Your task to perform on an android device: What's the weather going to be tomorrow? Image 0: 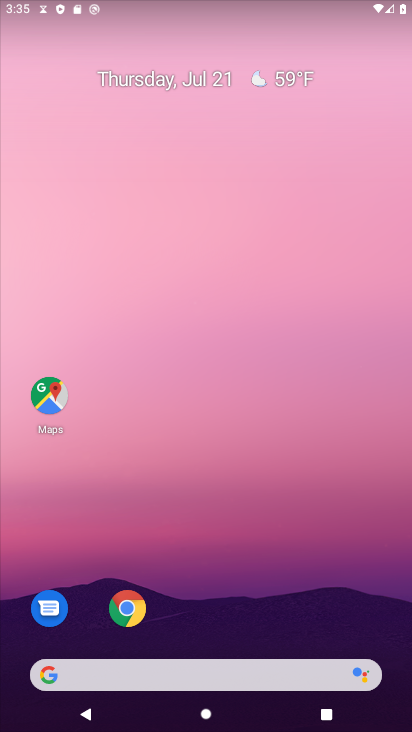
Step 0: drag from (198, 665) to (267, 9)
Your task to perform on an android device: What's the weather going to be tomorrow? Image 1: 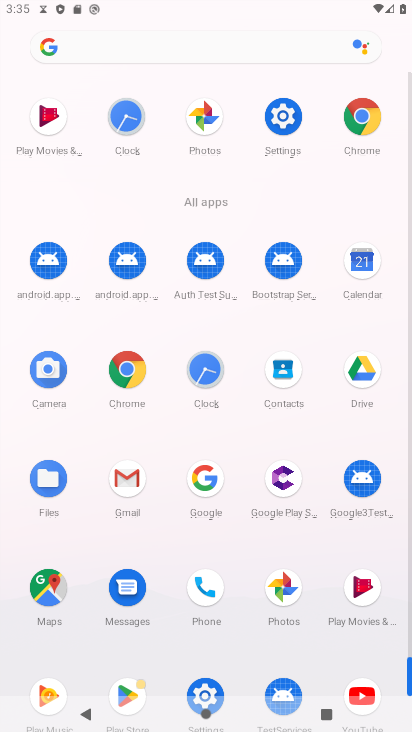
Step 1: click (133, 375)
Your task to perform on an android device: What's the weather going to be tomorrow? Image 2: 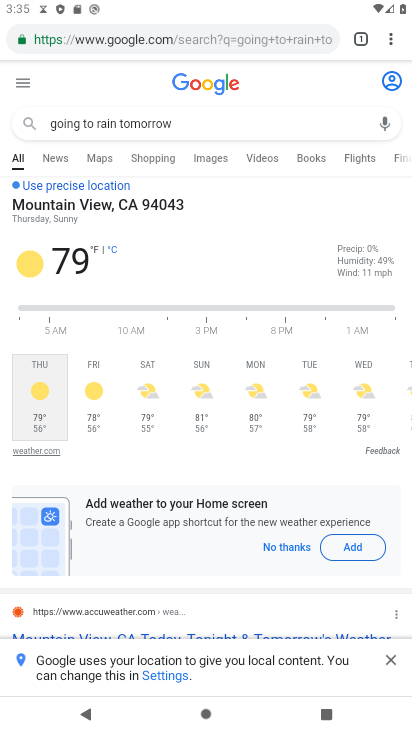
Step 2: click (120, 26)
Your task to perform on an android device: What's the weather going to be tomorrow? Image 3: 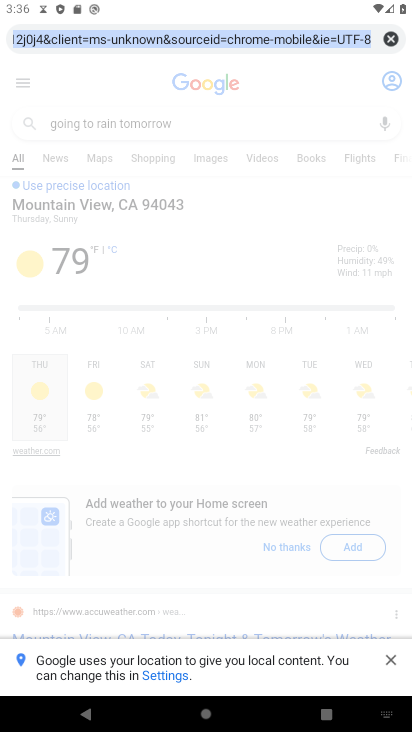
Step 3: type "weather going to be tomorrow"
Your task to perform on an android device: What's the weather going to be tomorrow? Image 4: 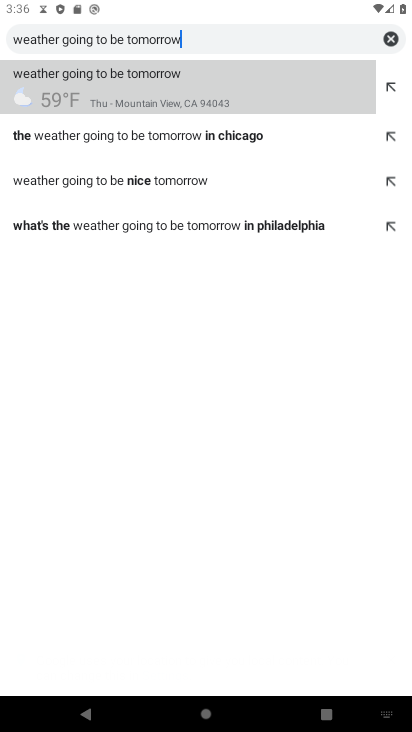
Step 4: click (181, 100)
Your task to perform on an android device: What's the weather going to be tomorrow? Image 5: 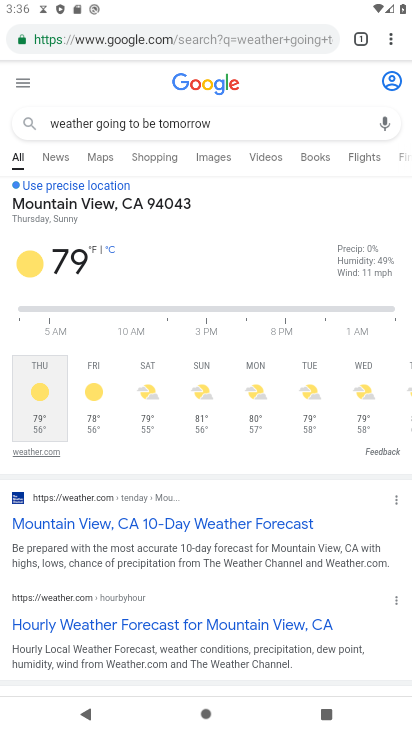
Step 5: task complete